Your task to perform on an android device: turn off javascript in the chrome app Image 0: 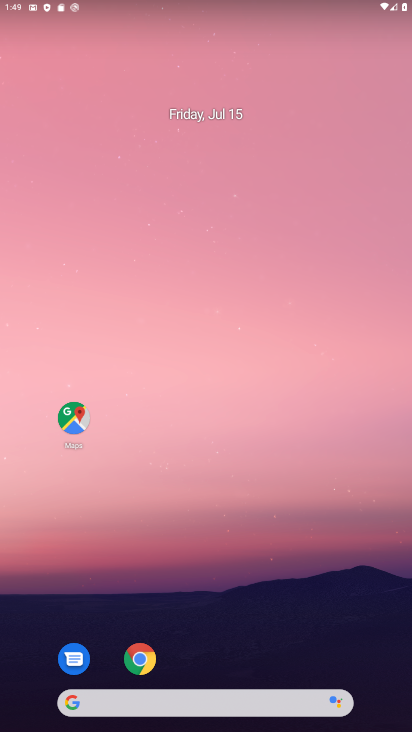
Step 0: click (61, 131)
Your task to perform on an android device: turn off javascript in the chrome app Image 1: 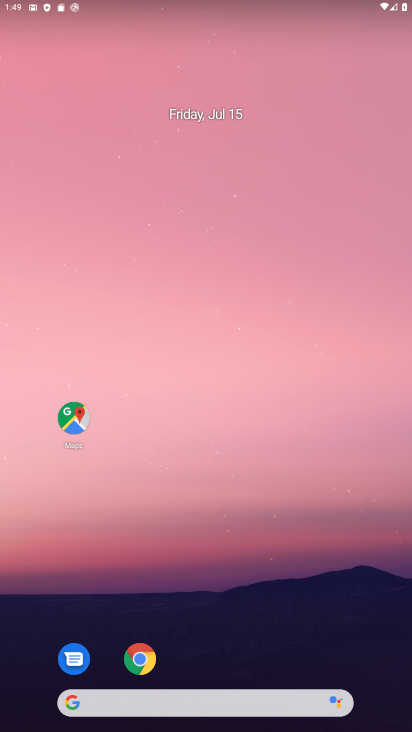
Step 1: drag from (245, 600) to (115, 51)
Your task to perform on an android device: turn off javascript in the chrome app Image 2: 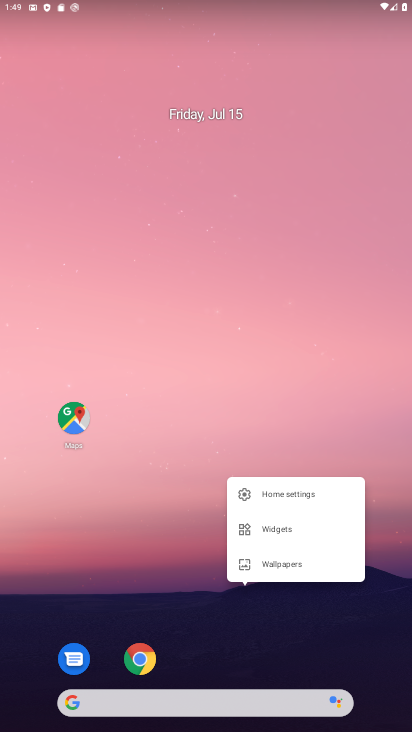
Step 2: drag from (255, 482) to (244, 31)
Your task to perform on an android device: turn off javascript in the chrome app Image 3: 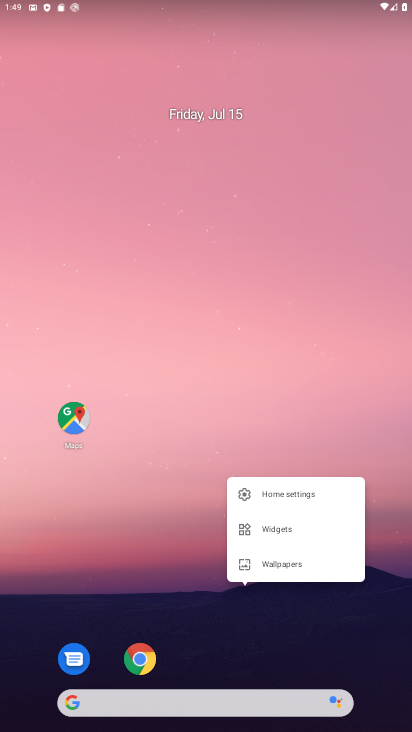
Step 3: drag from (257, 487) to (198, 66)
Your task to perform on an android device: turn off javascript in the chrome app Image 4: 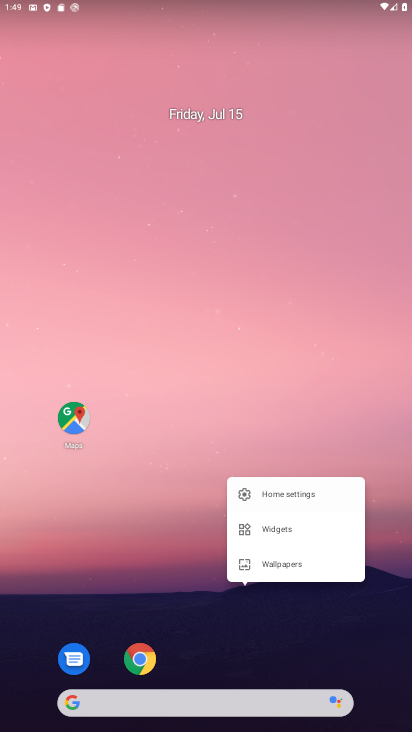
Step 4: drag from (160, 352) to (125, 28)
Your task to perform on an android device: turn off javascript in the chrome app Image 5: 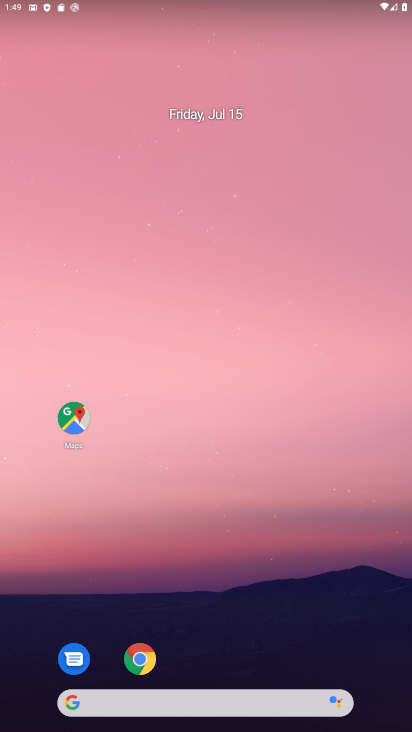
Step 5: drag from (183, 457) to (183, 177)
Your task to perform on an android device: turn off javascript in the chrome app Image 6: 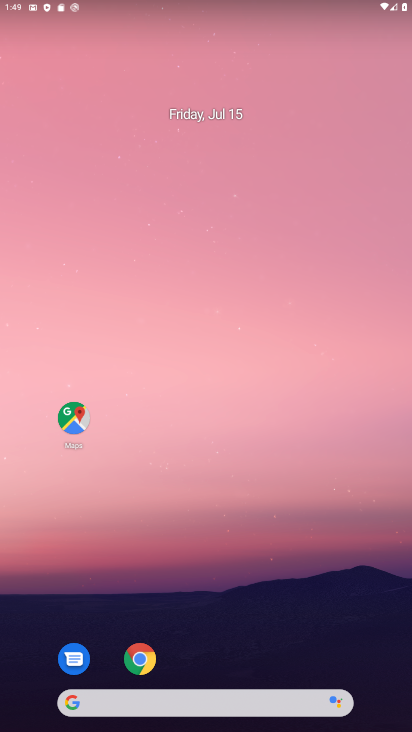
Step 6: drag from (216, 546) to (168, 83)
Your task to perform on an android device: turn off javascript in the chrome app Image 7: 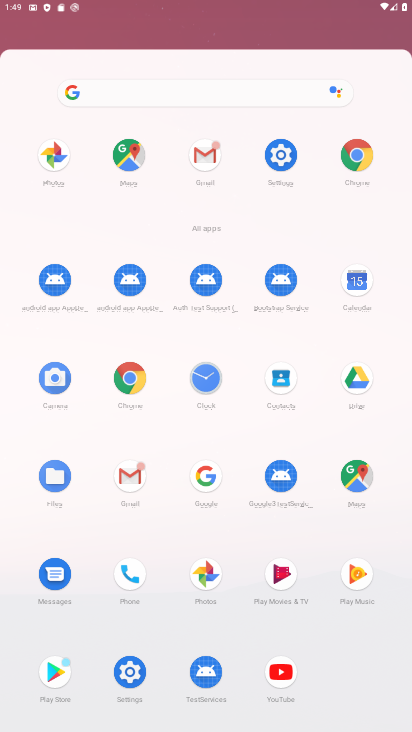
Step 7: drag from (181, 275) to (147, 4)
Your task to perform on an android device: turn off javascript in the chrome app Image 8: 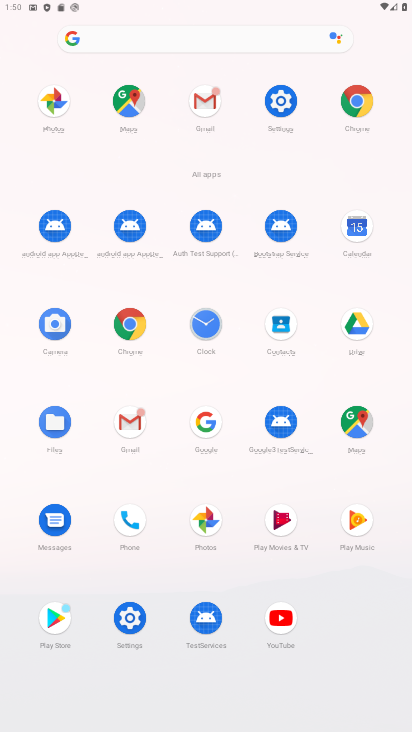
Step 8: click (356, 100)
Your task to perform on an android device: turn off javascript in the chrome app Image 9: 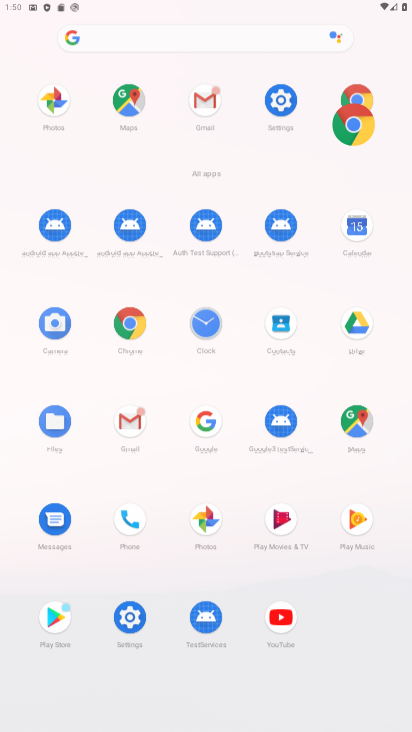
Step 9: click (357, 98)
Your task to perform on an android device: turn off javascript in the chrome app Image 10: 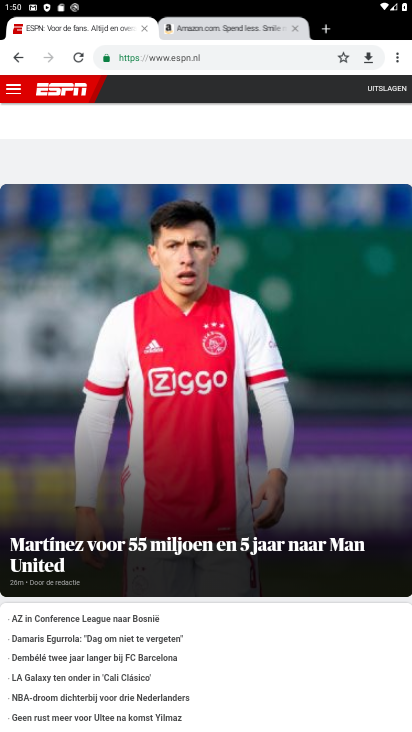
Step 10: drag from (398, 56) to (275, 384)
Your task to perform on an android device: turn off javascript in the chrome app Image 11: 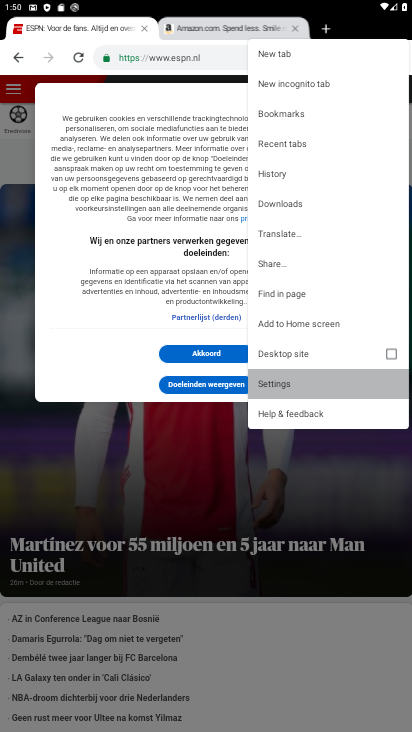
Step 11: click (278, 391)
Your task to perform on an android device: turn off javascript in the chrome app Image 12: 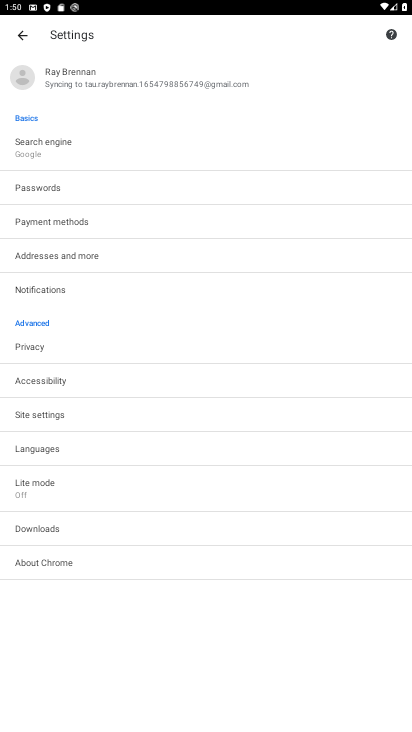
Step 12: click (28, 415)
Your task to perform on an android device: turn off javascript in the chrome app Image 13: 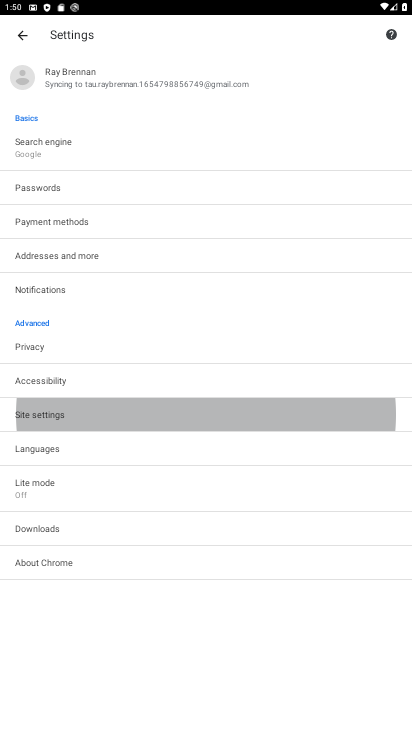
Step 13: click (27, 416)
Your task to perform on an android device: turn off javascript in the chrome app Image 14: 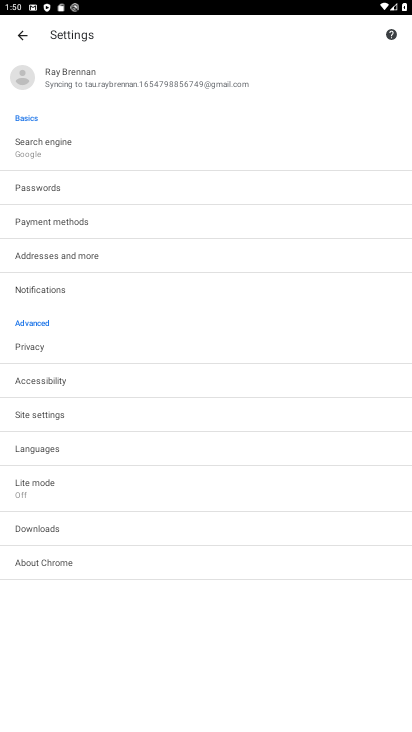
Step 14: click (31, 416)
Your task to perform on an android device: turn off javascript in the chrome app Image 15: 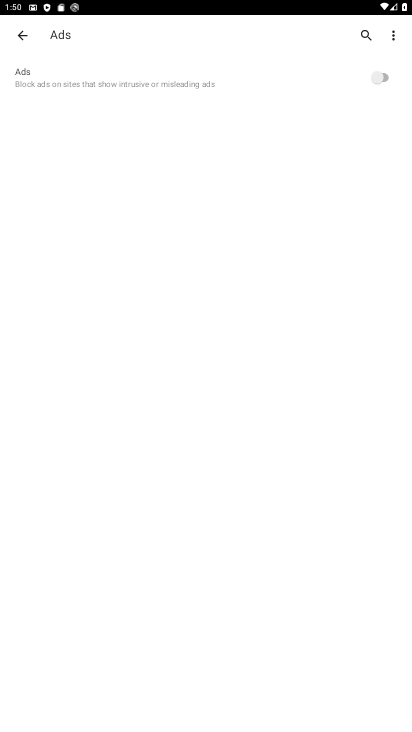
Step 15: click (13, 36)
Your task to perform on an android device: turn off javascript in the chrome app Image 16: 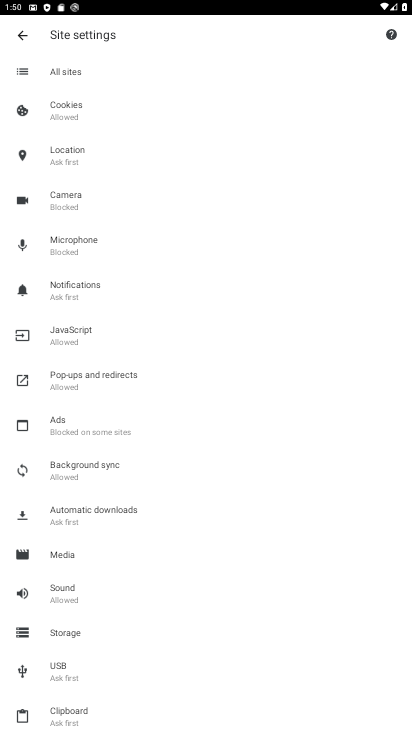
Step 16: click (73, 323)
Your task to perform on an android device: turn off javascript in the chrome app Image 17: 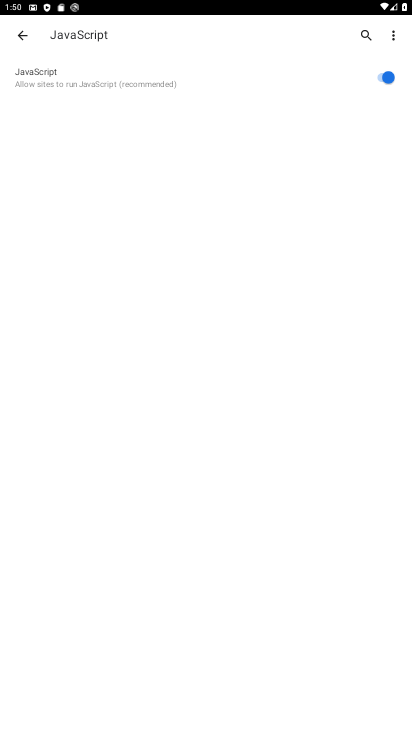
Step 17: click (389, 74)
Your task to perform on an android device: turn off javascript in the chrome app Image 18: 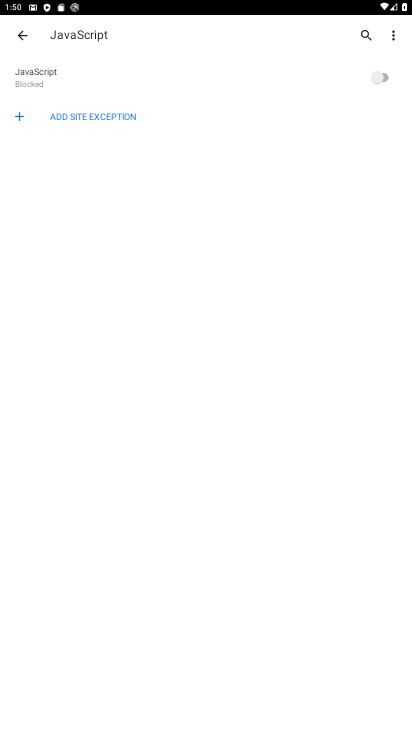
Step 18: task complete